Your task to perform on an android device: Open Wikipedia Image 0: 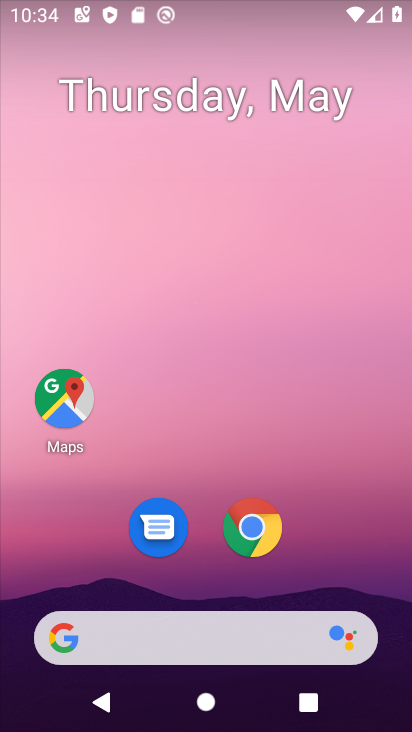
Step 0: click (249, 522)
Your task to perform on an android device: Open Wikipedia Image 1: 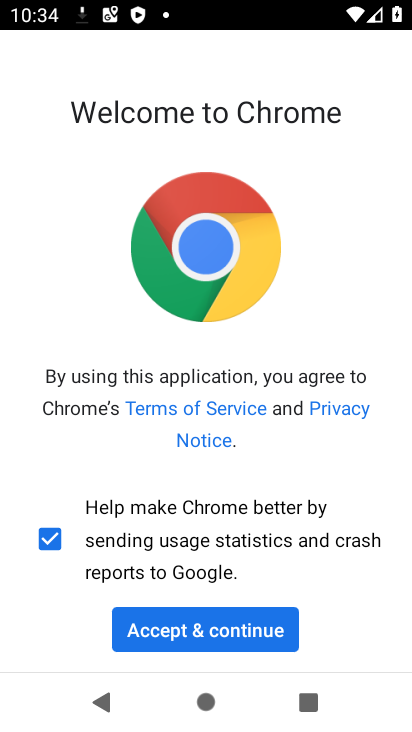
Step 1: click (178, 623)
Your task to perform on an android device: Open Wikipedia Image 2: 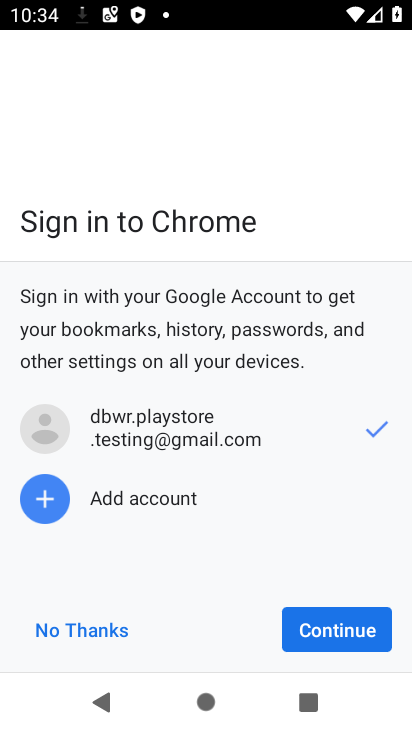
Step 2: click (340, 619)
Your task to perform on an android device: Open Wikipedia Image 3: 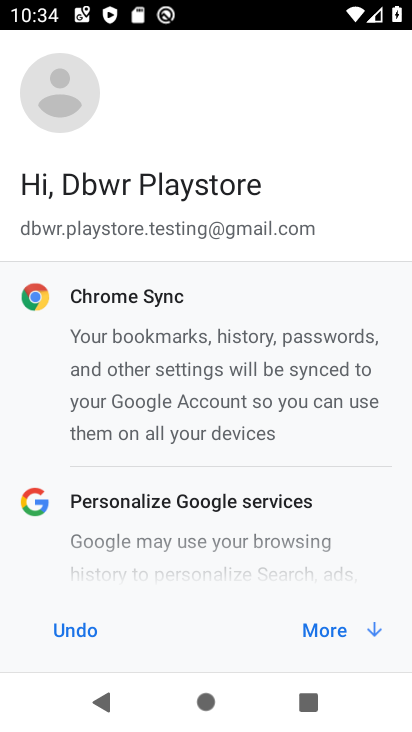
Step 3: click (310, 623)
Your task to perform on an android device: Open Wikipedia Image 4: 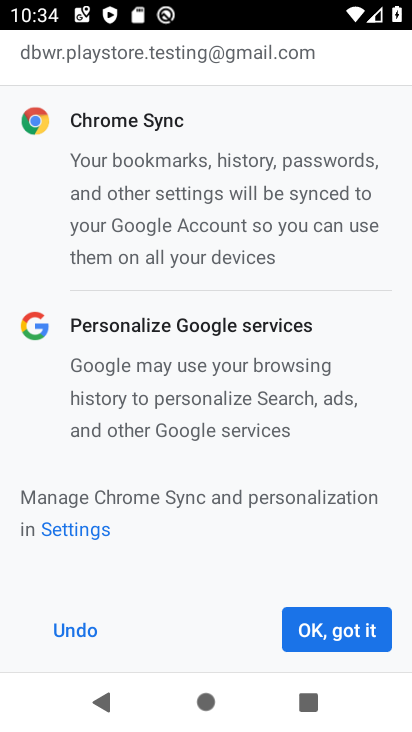
Step 4: click (325, 625)
Your task to perform on an android device: Open Wikipedia Image 5: 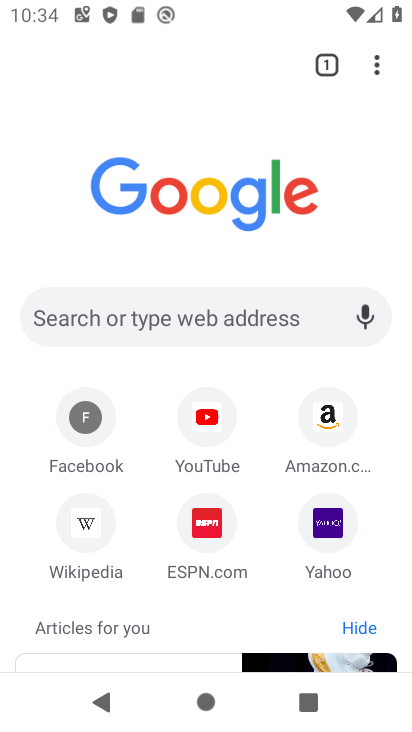
Step 5: click (86, 544)
Your task to perform on an android device: Open Wikipedia Image 6: 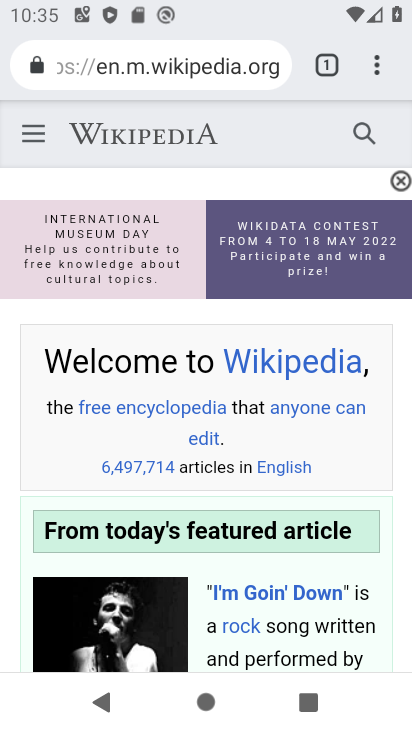
Step 6: task complete